Your task to perform on an android device: Open network settings Image 0: 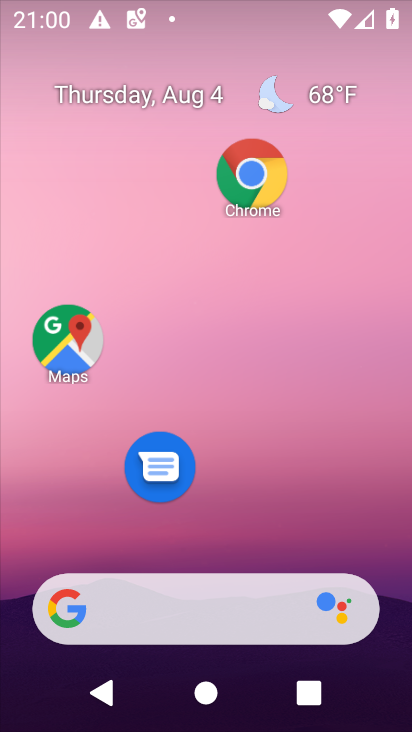
Step 0: press home button
Your task to perform on an android device: Open network settings Image 1: 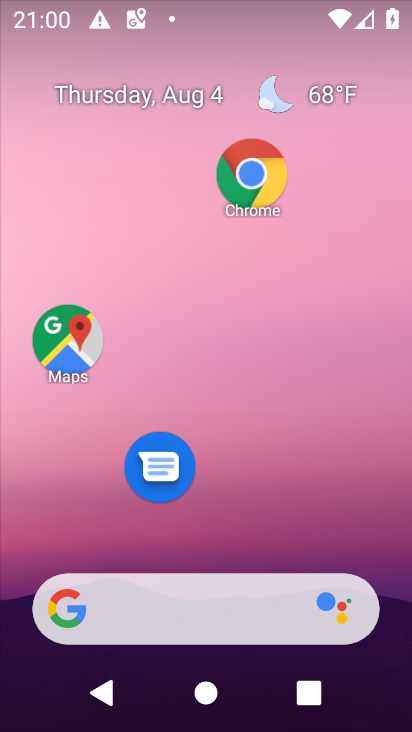
Step 1: drag from (239, 583) to (211, 53)
Your task to perform on an android device: Open network settings Image 2: 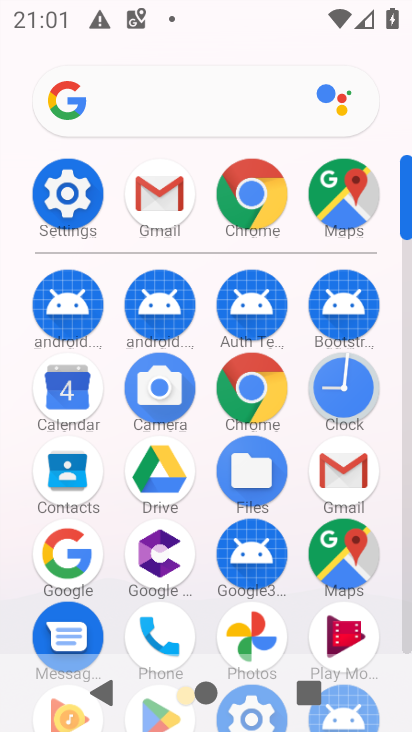
Step 2: click (54, 190)
Your task to perform on an android device: Open network settings Image 3: 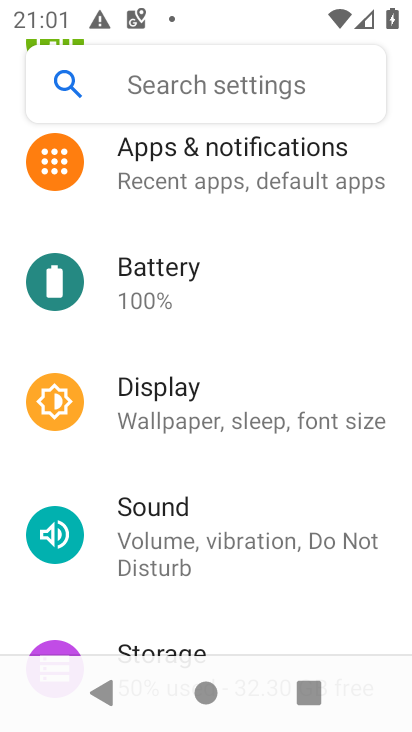
Step 3: drag from (128, 201) to (231, 723)
Your task to perform on an android device: Open network settings Image 4: 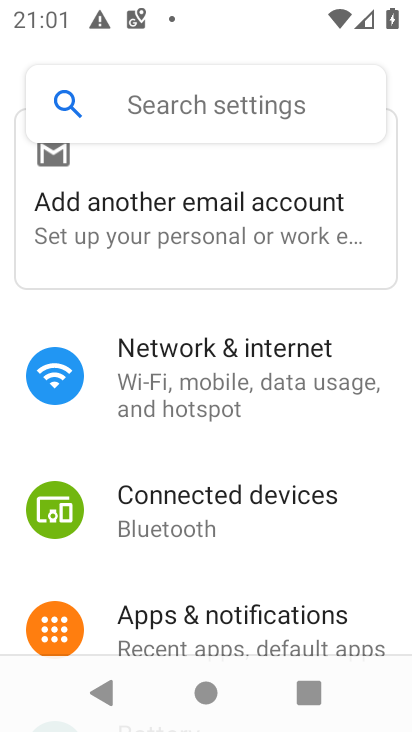
Step 4: click (223, 356)
Your task to perform on an android device: Open network settings Image 5: 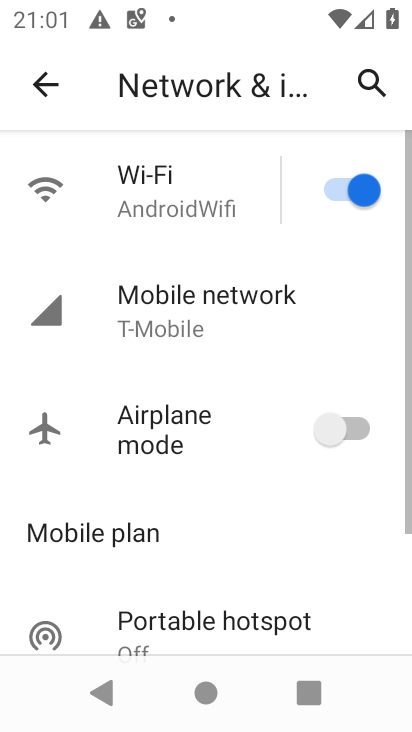
Step 5: task complete